Your task to perform on an android device: Open the stopwatch Image 0: 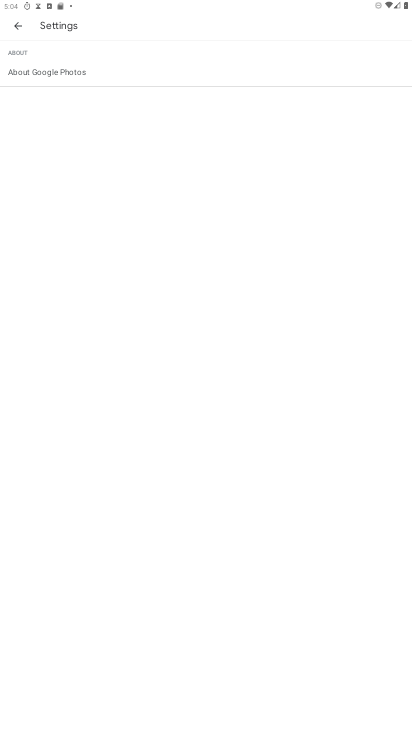
Step 0: press home button
Your task to perform on an android device: Open the stopwatch Image 1: 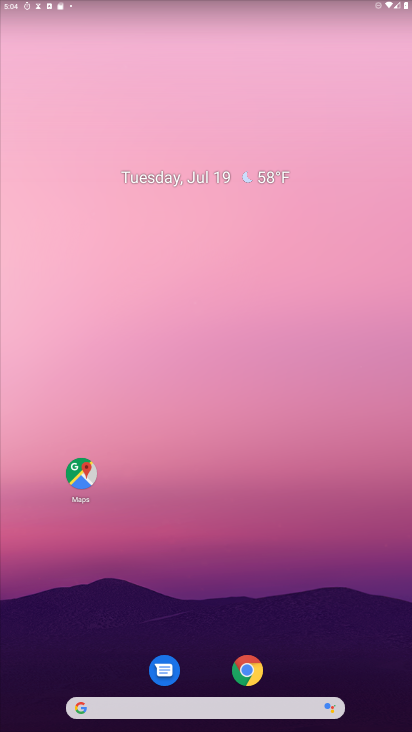
Step 1: drag from (241, 705) to (297, 20)
Your task to perform on an android device: Open the stopwatch Image 2: 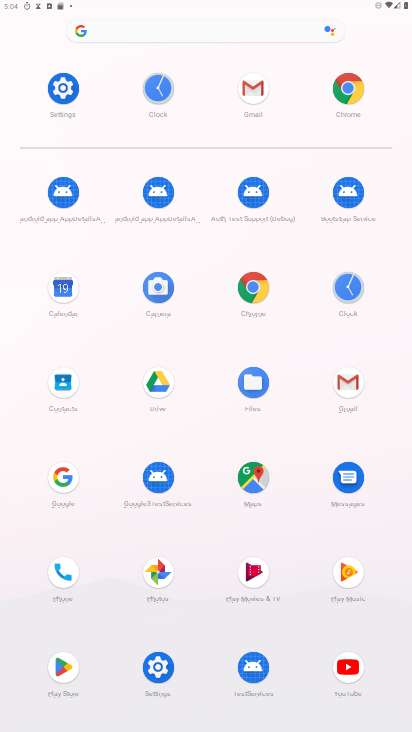
Step 2: click (348, 287)
Your task to perform on an android device: Open the stopwatch Image 3: 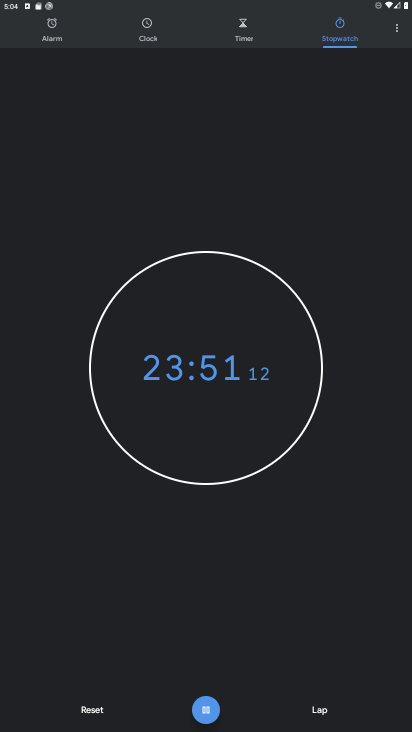
Step 3: task complete